Your task to perform on an android device: Play the last video I watched on Youtube Image 0: 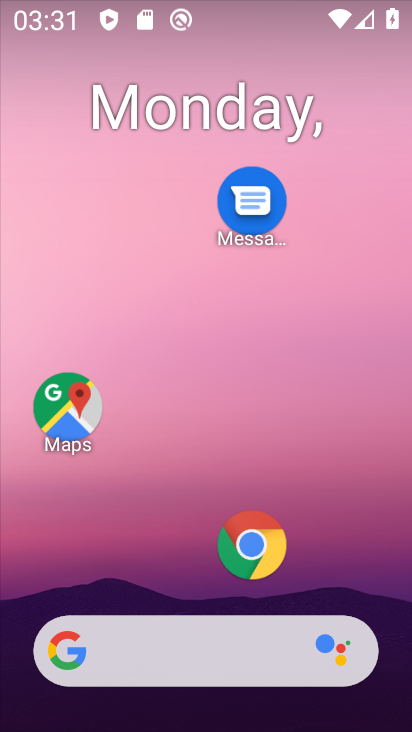
Step 0: drag from (197, 521) to (197, 107)
Your task to perform on an android device: Play the last video I watched on Youtube Image 1: 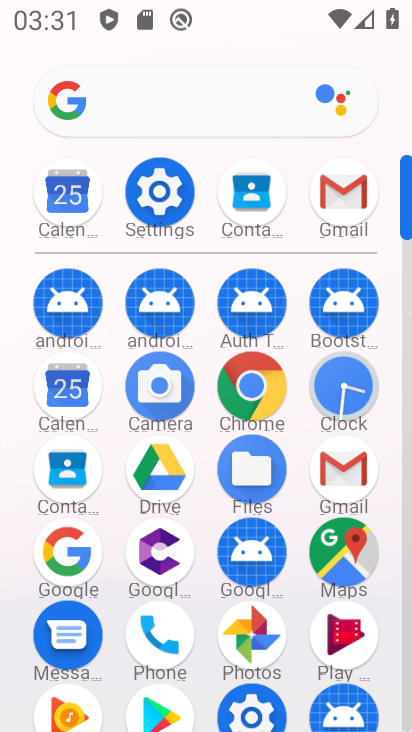
Step 1: drag from (192, 598) to (332, 56)
Your task to perform on an android device: Play the last video I watched on Youtube Image 2: 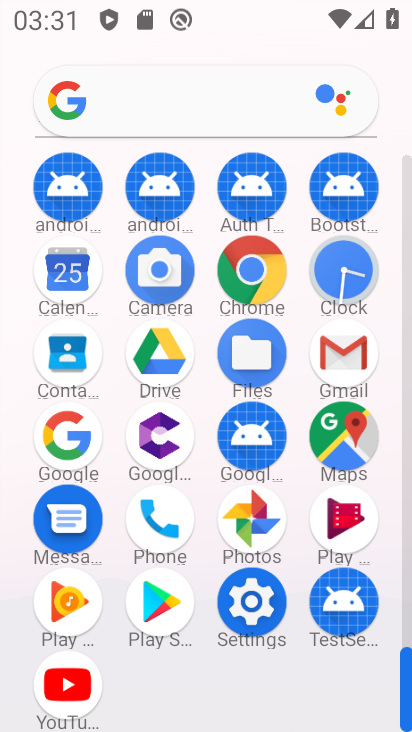
Step 2: click (74, 684)
Your task to perform on an android device: Play the last video I watched on Youtube Image 3: 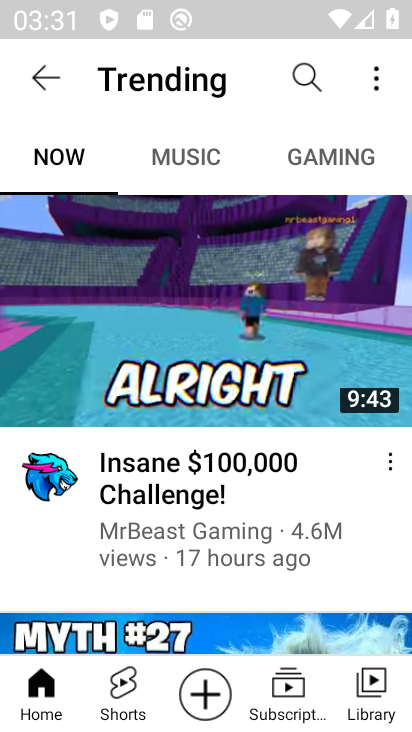
Step 3: click (372, 678)
Your task to perform on an android device: Play the last video I watched on Youtube Image 4: 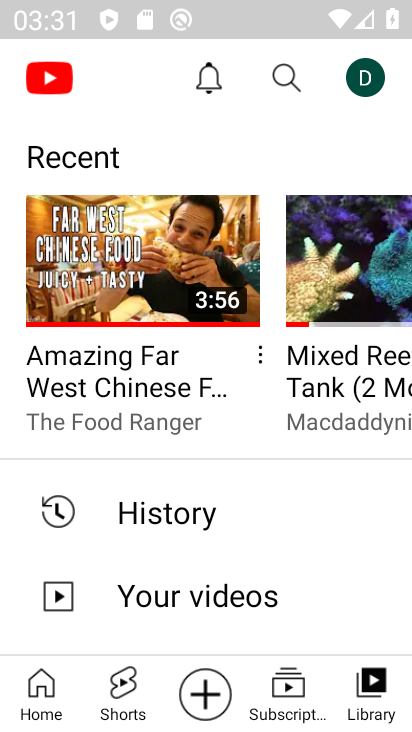
Step 4: click (167, 518)
Your task to perform on an android device: Play the last video I watched on Youtube Image 5: 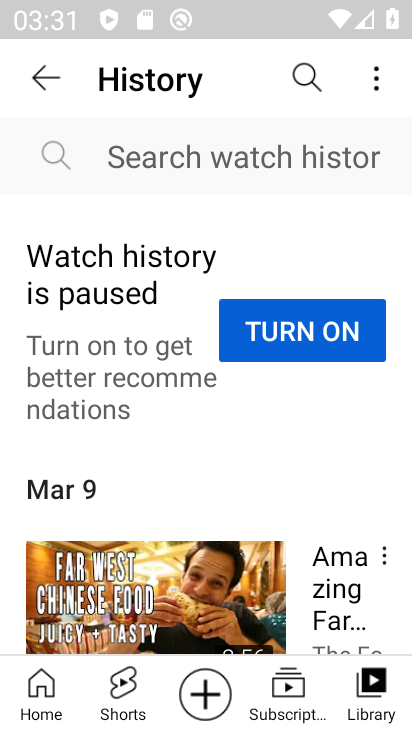
Step 5: click (108, 608)
Your task to perform on an android device: Play the last video I watched on Youtube Image 6: 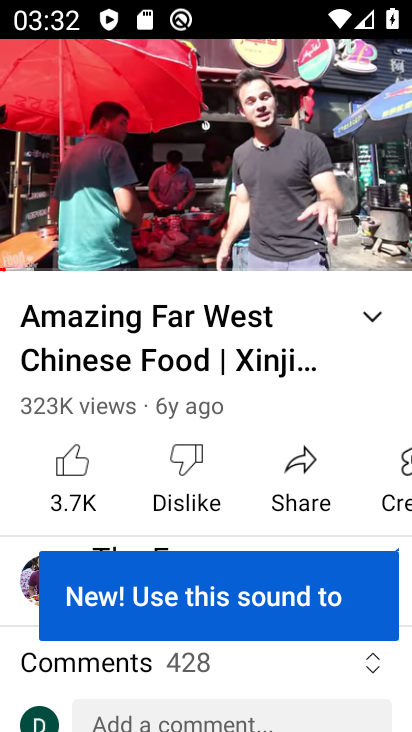
Step 6: task complete